Your task to perform on an android device: check storage Image 0: 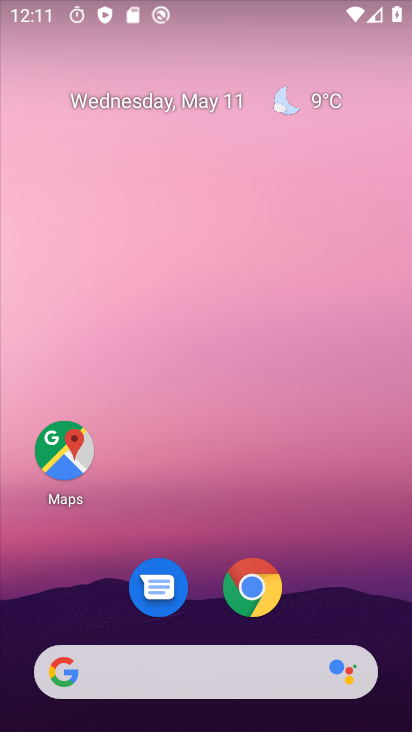
Step 0: drag from (341, 600) to (136, 103)
Your task to perform on an android device: check storage Image 1: 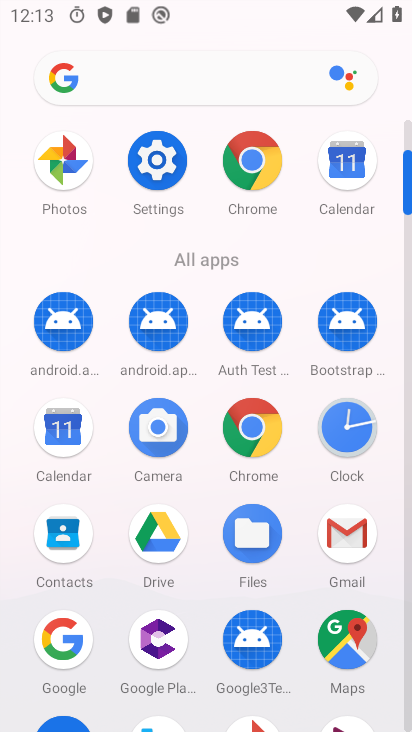
Step 1: click (147, 163)
Your task to perform on an android device: check storage Image 2: 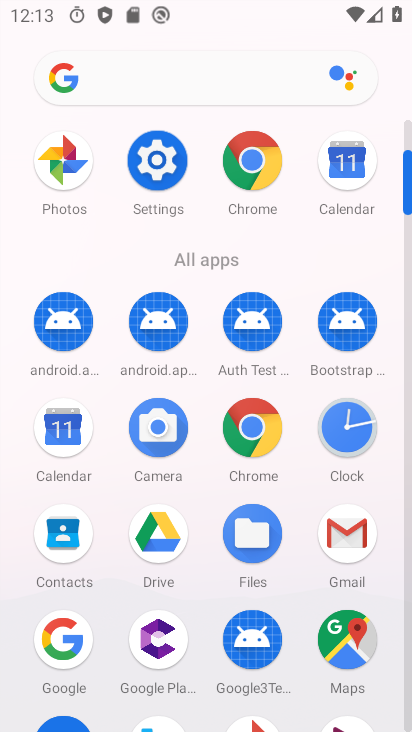
Step 2: click (147, 163)
Your task to perform on an android device: check storage Image 3: 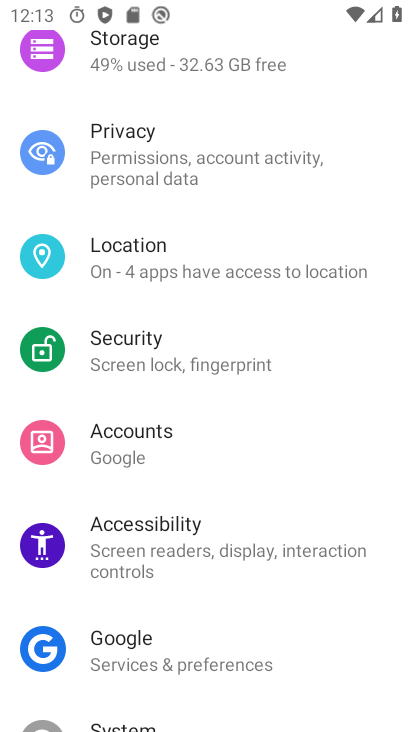
Step 3: click (129, 61)
Your task to perform on an android device: check storage Image 4: 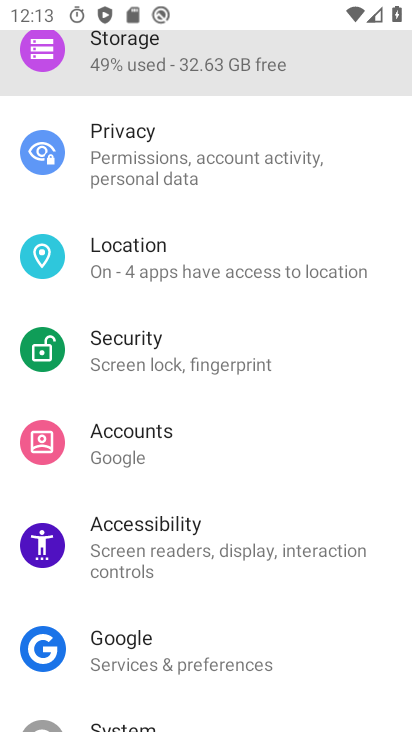
Step 4: click (129, 61)
Your task to perform on an android device: check storage Image 5: 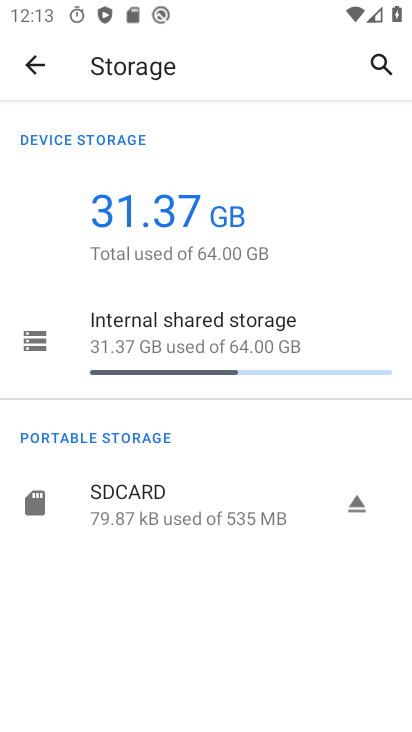
Step 5: task complete